Your task to perform on an android device: find snoozed emails in the gmail app Image 0: 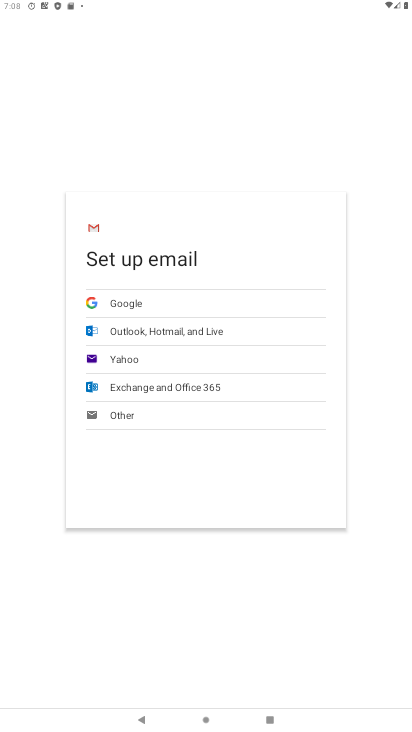
Step 0: press home button
Your task to perform on an android device: find snoozed emails in the gmail app Image 1: 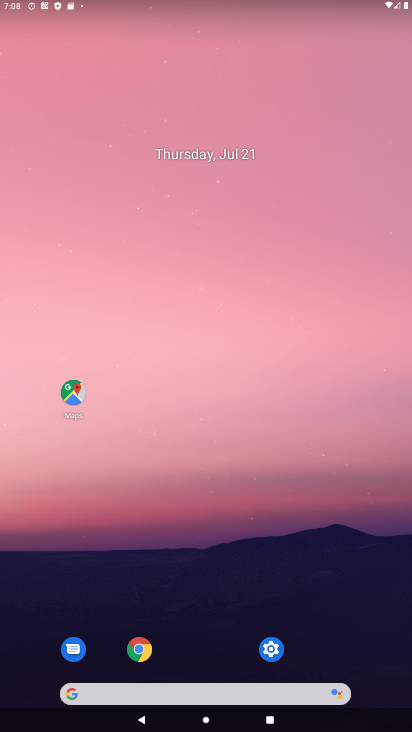
Step 1: drag from (277, 713) to (209, 180)
Your task to perform on an android device: find snoozed emails in the gmail app Image 2: 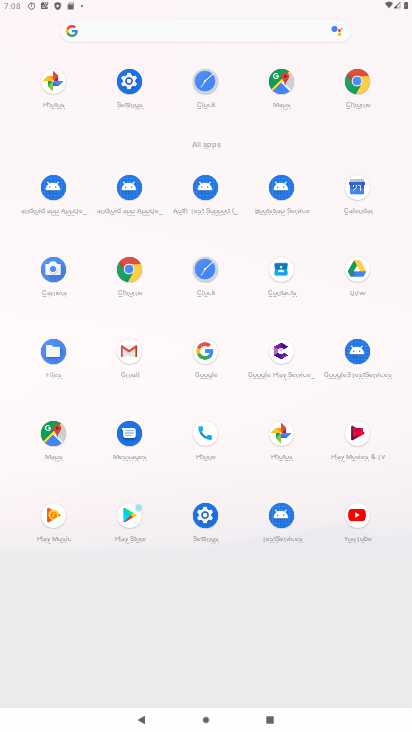
Step 2: drag from (134, 349) to (227, 653)
Your task to perform on an android device: find snoozed emails in the gmail app Image 3: 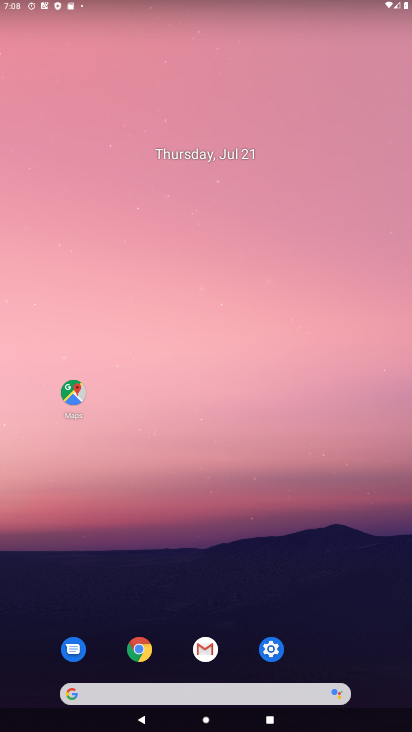
Step 3: click (221, 654)
Your task to perform on an android device: find snoozed emails in the gmail app Image 4: 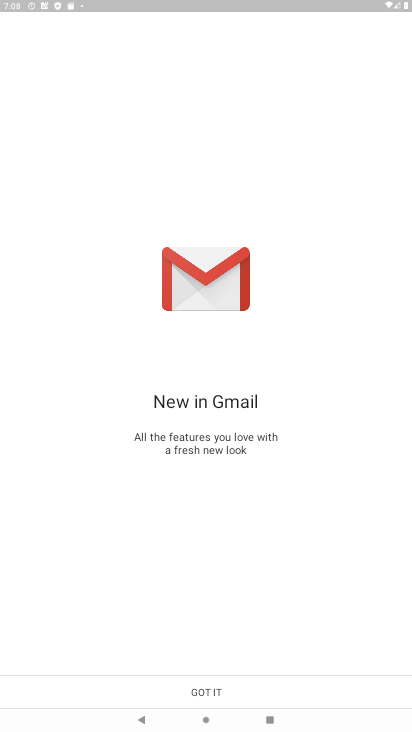
Step 4: click (237, 693)
Your task to perform on an android device: find snoozed emails in the gmail app Image 5: 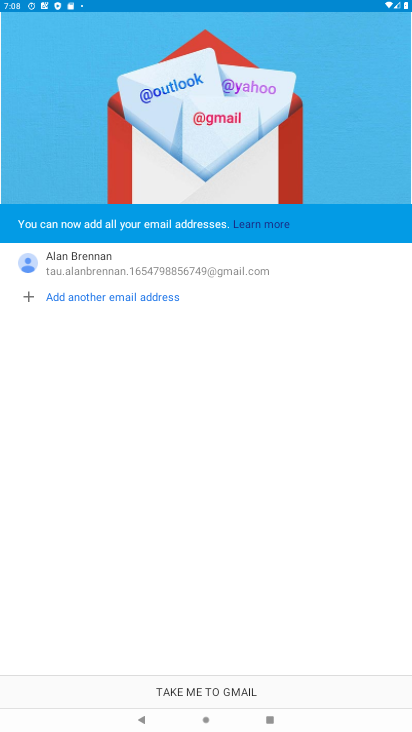
Step 5: click (237, 693)
Your task to perform on an android device: find snoozed emails in the gmail app Image 6: 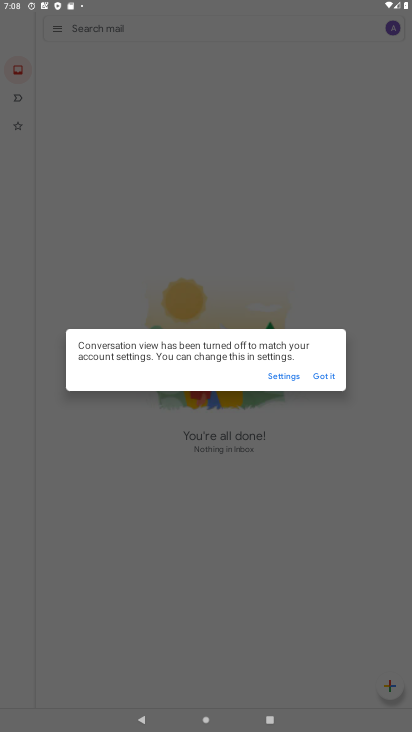
Step 6: click (334, 371)
Your task to perform on an android device: find snoozed emails in the gmail app Image 7: 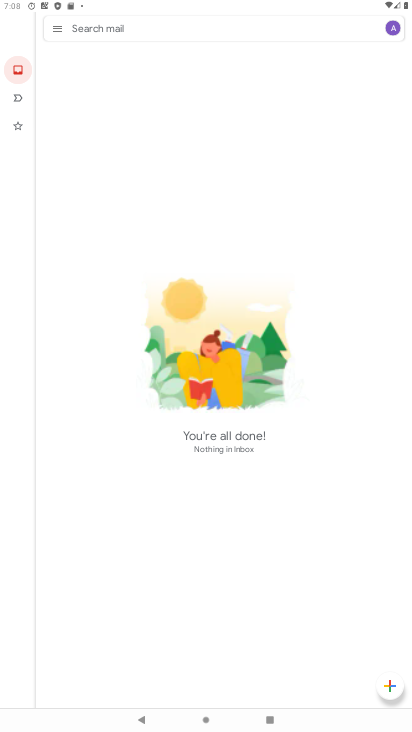
Step 7: click (57, 34)
Your task to perform on an android device: find snoozed emails in the gmail app Image 8: 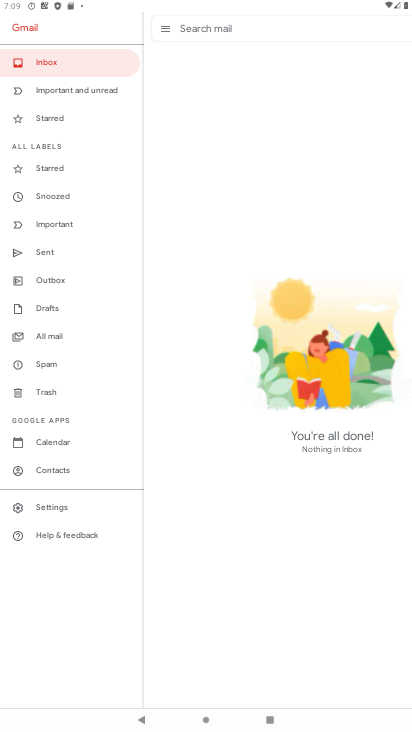
Step 8: click (54, 200)
Your task to perform on an android device: find snoozed emails in the gmail app Image 9: 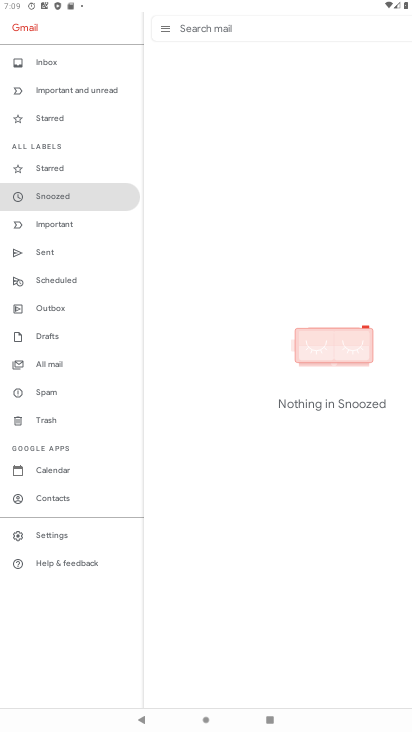
Step 9: task complete